Your task to perform on an android device: Look up the best rated wireless earbuds on Ali Express Image 0: 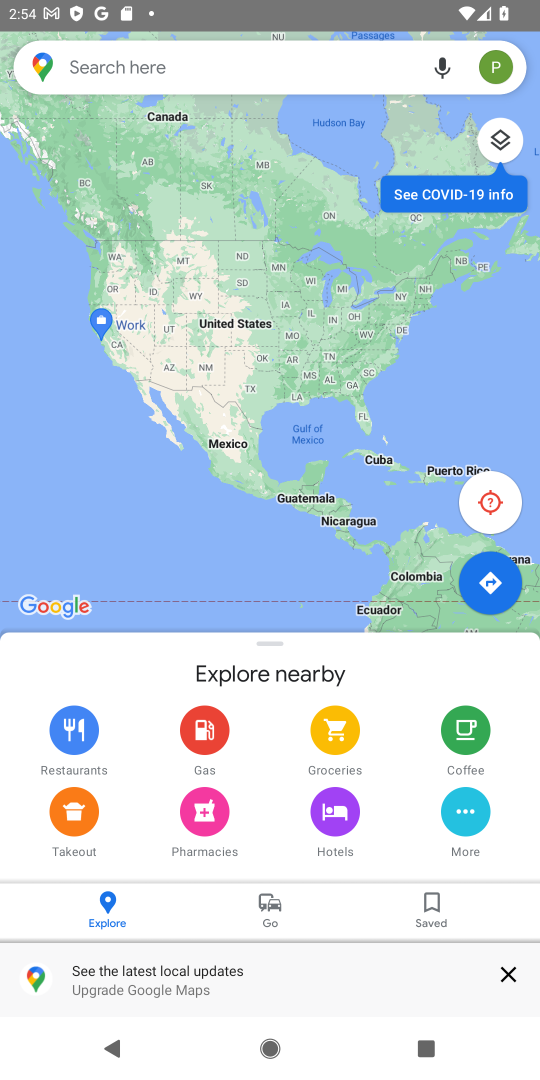
Step 0: press home button
Your task to perform on an android device: Look up the best rated wireless earbuds on Ali Express Image 1: 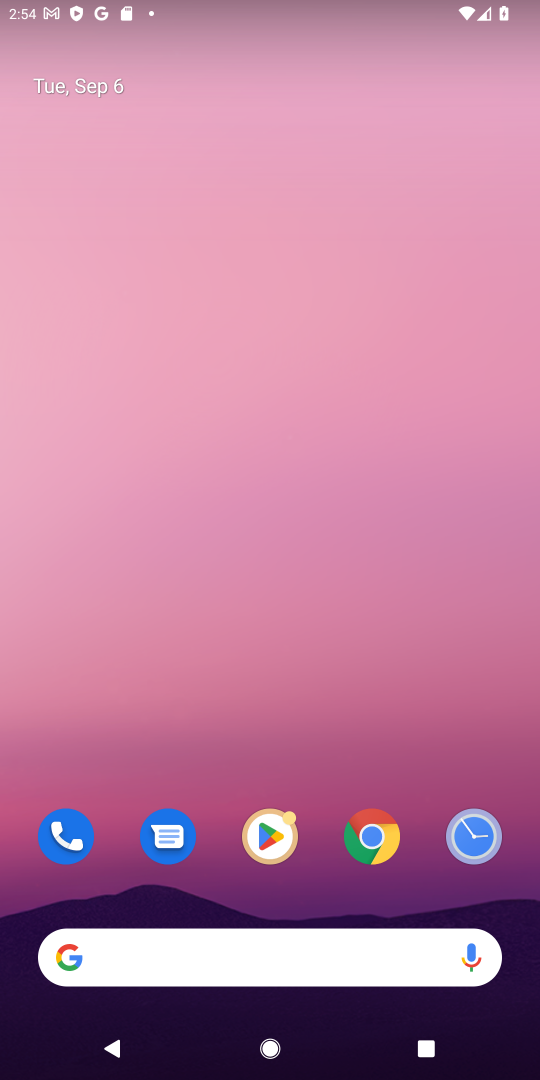
Step 1: click (238, 961)
Your task to perform on an android device: Look up the best rated wireless earbuds on Ali Express Image 2: 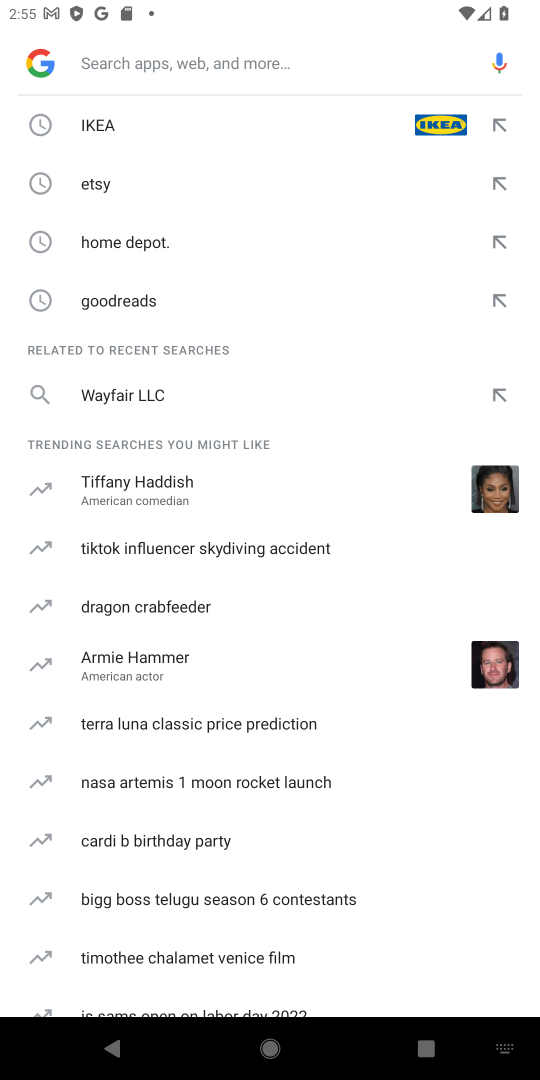
Step 2: type "ali express"
Your task to perform on an android device: Look up the best rated wireless earbuds on Ali Express Image 3: 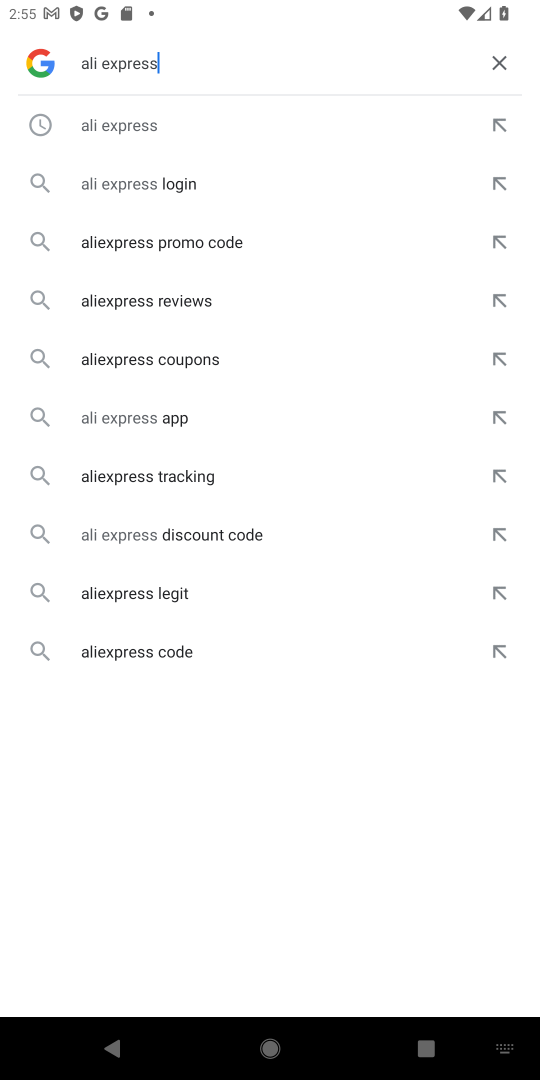
Step 3: click (106, 122)
Your task to perform on an android device: Look up the best rated wireless earbuds on Ali Express Image 4: 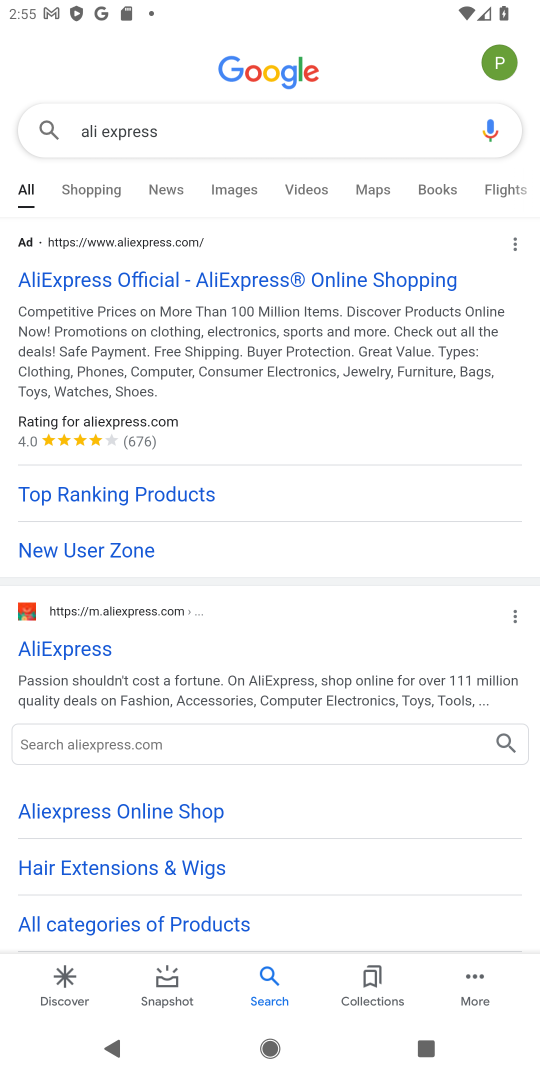
Step 4: click (68, 277)
Your task to perform on an android device: Look up the best rated wireless earbuds on Ali Express Image 5: 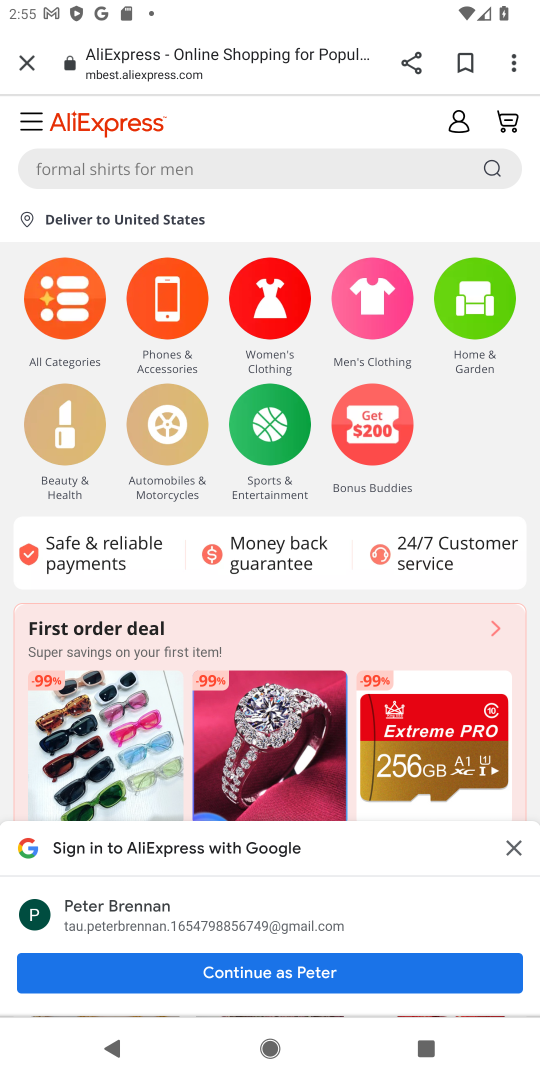
Step 5: click (169, 159)
Your task to perform on an android device: Look up the best rated wireless earbuds on Ali Express Image 6: 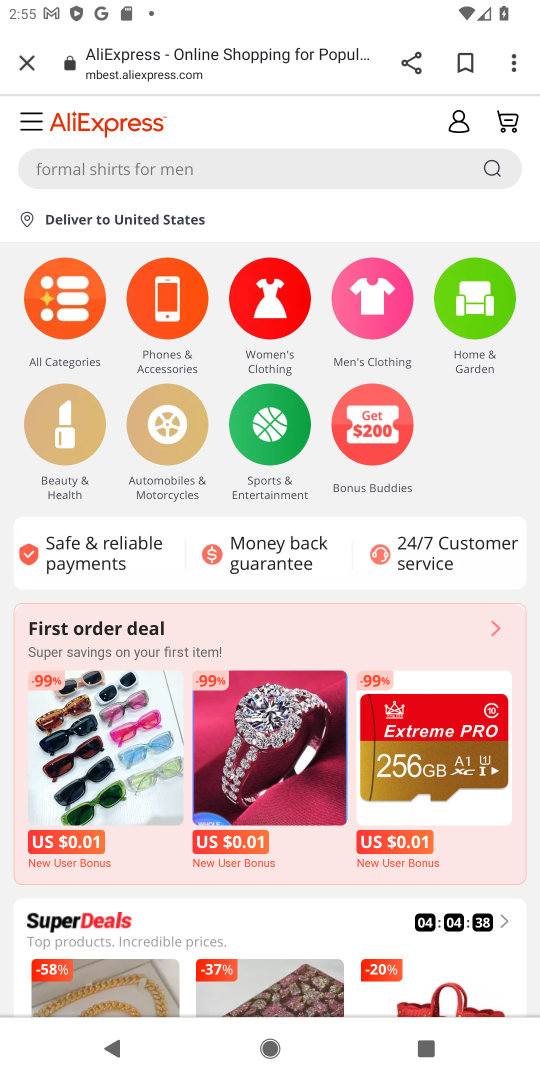
Step 6: click (68, 166)
Your task to perform on an android device: Look up the best rated wireless earbuds on Ali Express Image 7: 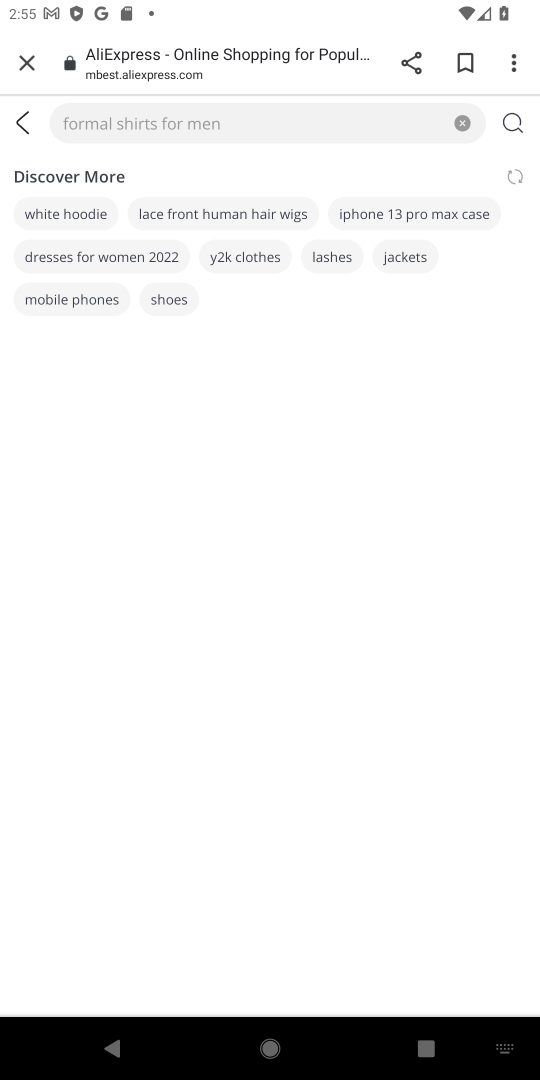
Step 7: click (120, 162)
Your task to perform on an android device: Look up the best rated wireless earbuds on Ali Express Image 8: 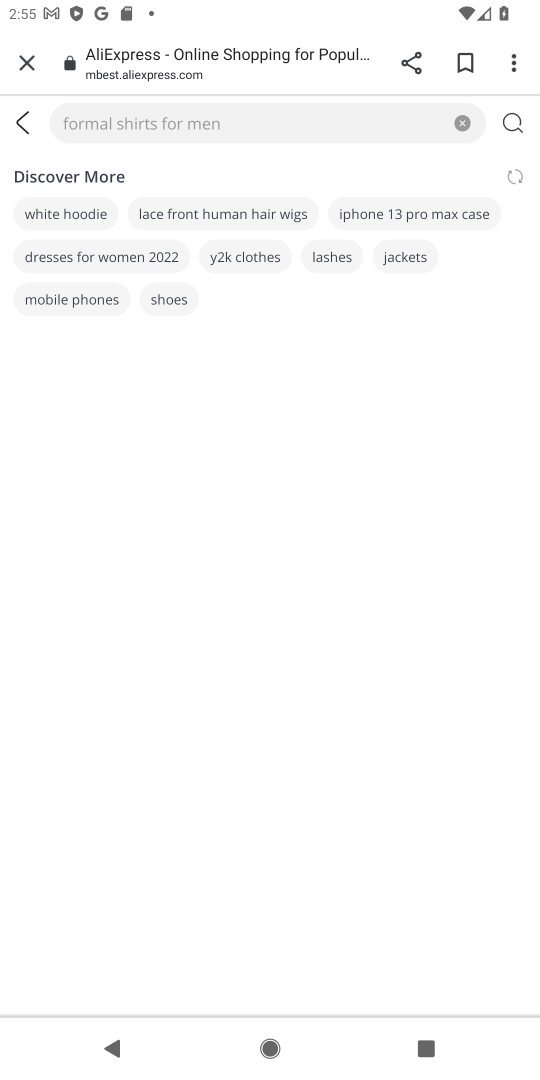
Step 8: click (165, 109)
Your task to perform on an android device: Look up the best rated wireless earbuds on Ali Express Image 9: 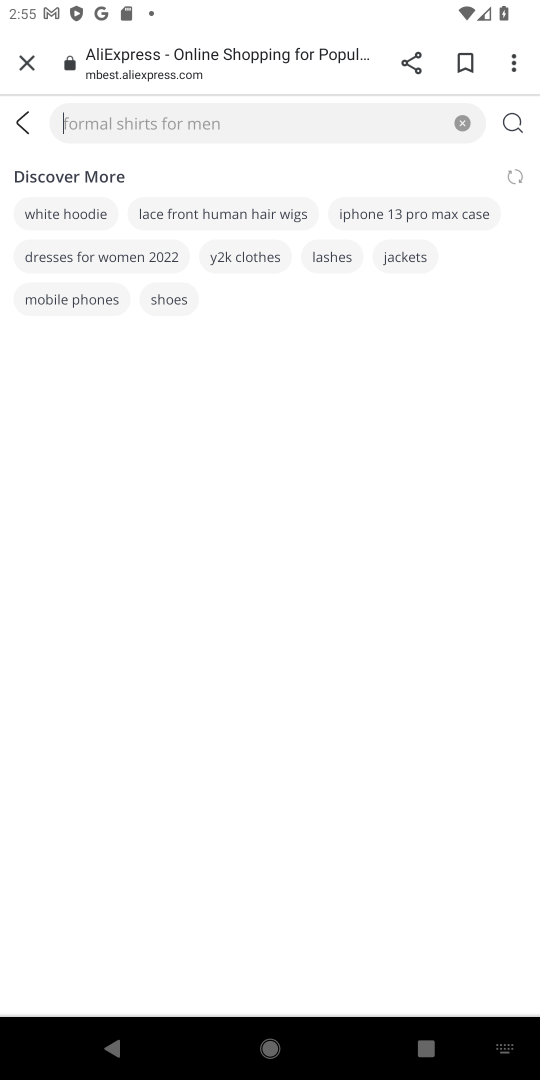
Step 9: type "best rated wireless earbuds"
Your task to perform on an android device: Look up the best rated wireless earbuds on Ali Express Image 10: 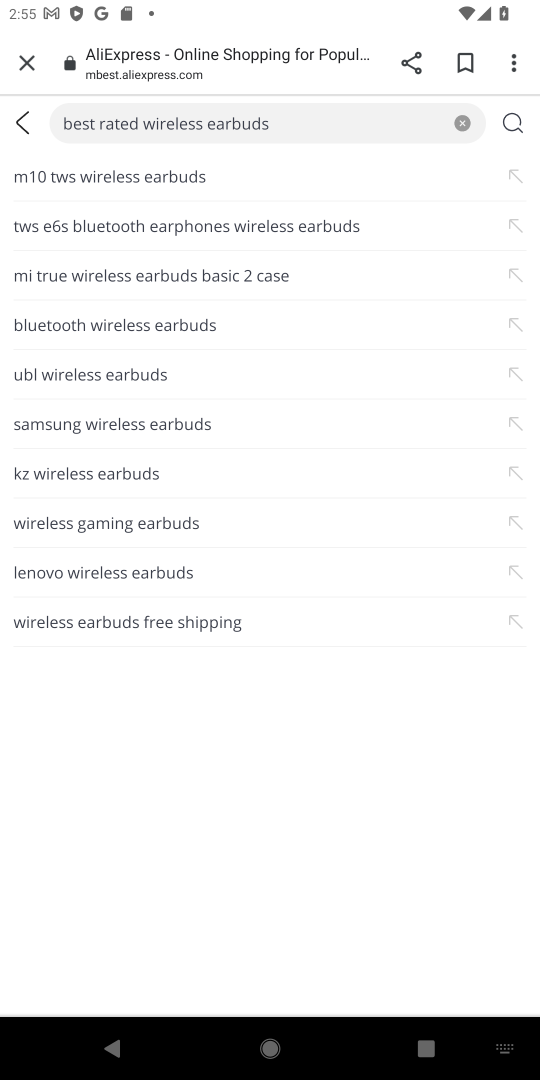
Step 10: click (516, 120)
Your task to perform on an android device: Look up the best rated wireless earbuds on Ali Express Image 11: 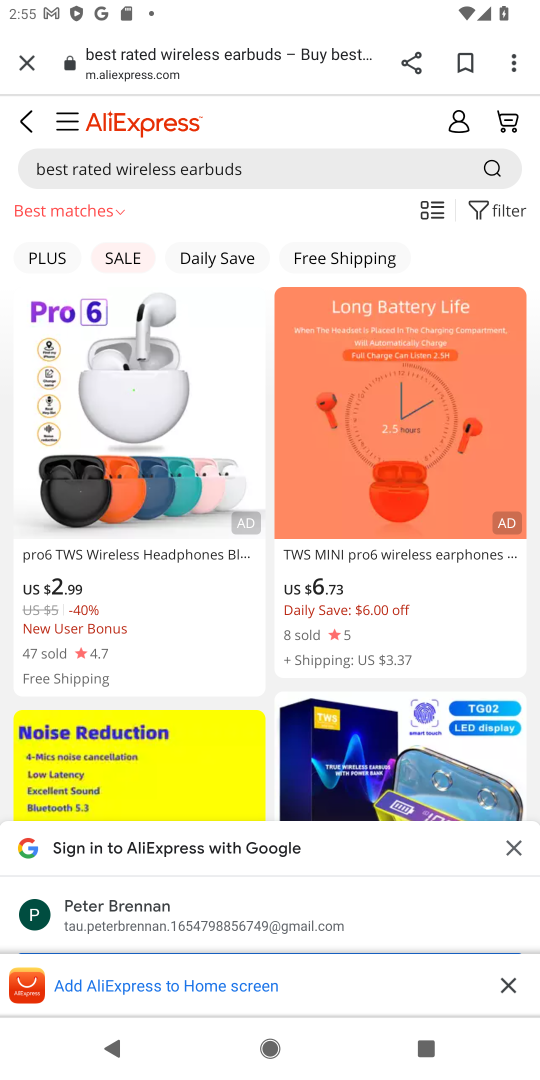
Step 11: task complete